Your task to perform on an android device: Do I have any events this weekend? Image 0: 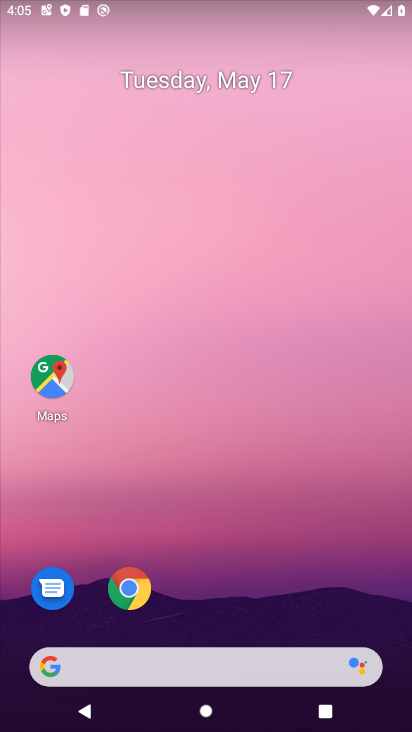
Step 0: drag from (262, 509) to (208, 82)
Your task to perform on an android device: Do I have any events this weekend? Image 1: 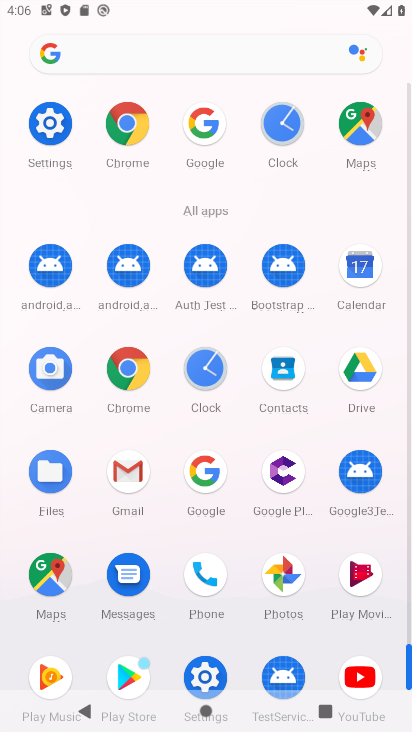
Step 1: click (361, 267)
Your task to perform on an android device: Do I have any events this weekend? Image 2: 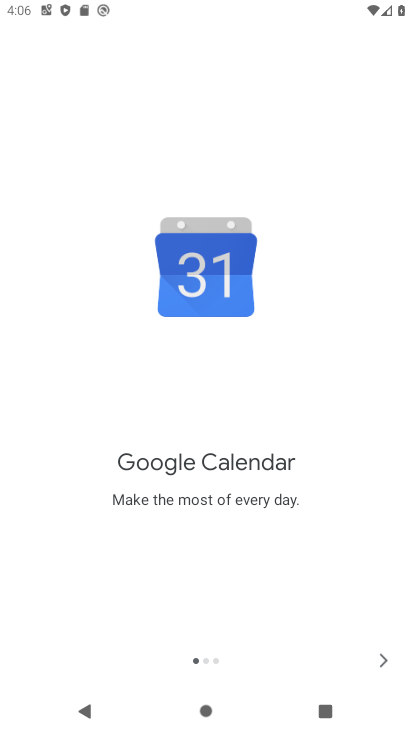
Step 2: click (383, 657)
Your task to perform on an android device: Do I have any events this weekend? Image 3: 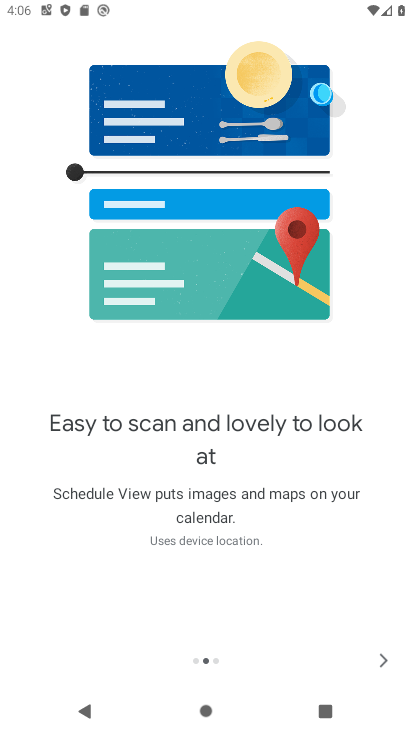
Step 3: click (383, 657)
Your task to perform on an android device: Do I have any events this weekend? Image 4: 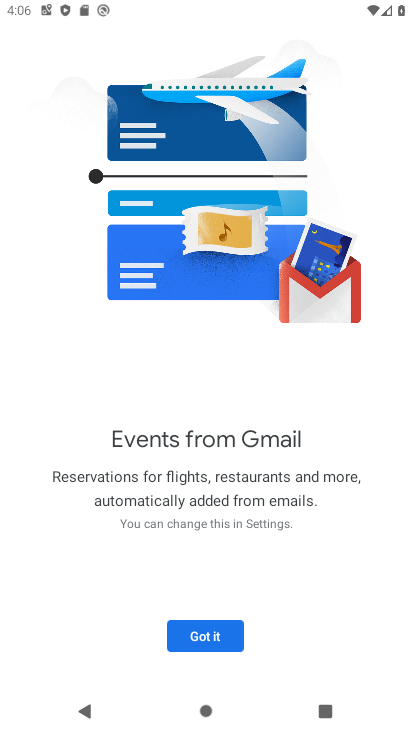
Step 4: click (212, 638)
Your task to perform on an android device: Do I have any events this weekend? Image 5: 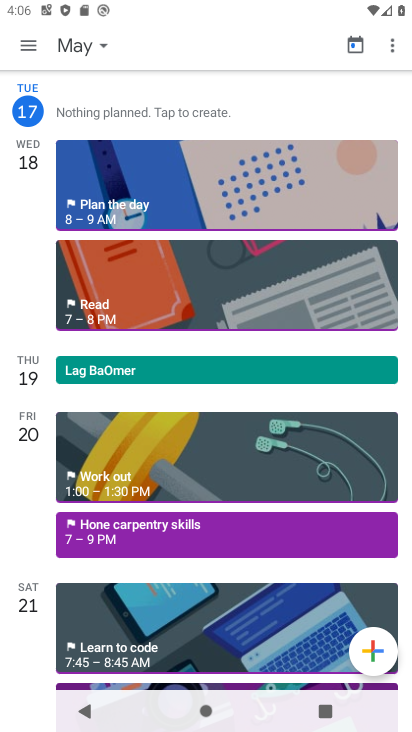
Step 5: click (101, 45)
Your task to perform on an android device: Do I have any events this weekend? Image 6: 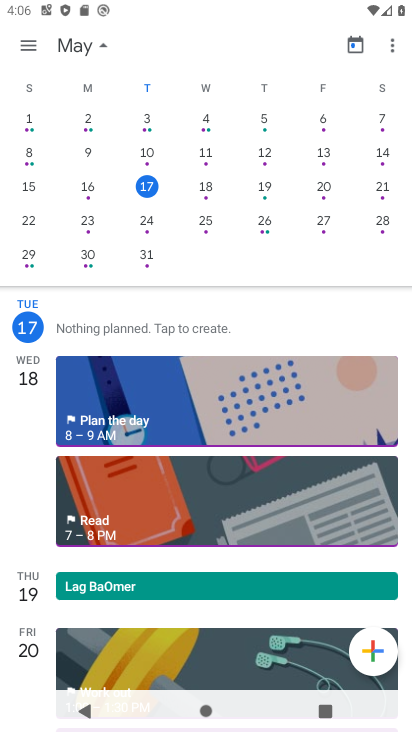
Step 6: click (381, 190)
Your task to perform on an android device: Do I have any events this weekend? Image 7: 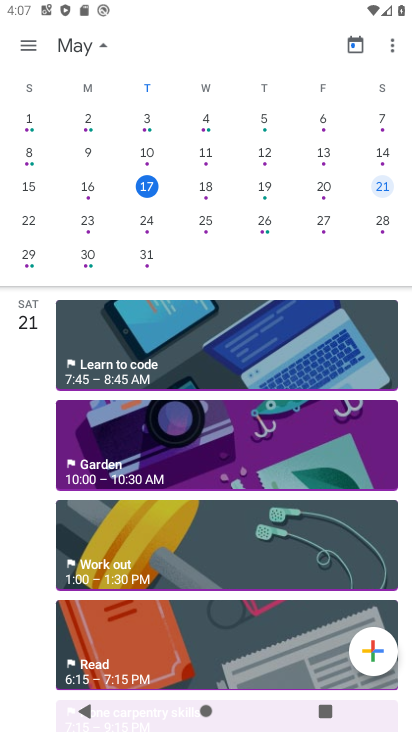
Step 7: click (25, 50)
Your task to perform on an android device: Do I have any events this weekend? Image 8: 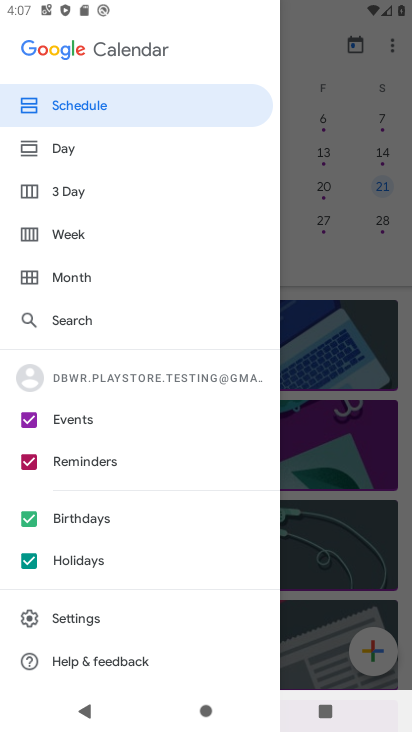
Step 8: click (71, 224)
Your task to perform on an android device: Do I have any events this weekend? Image 9: 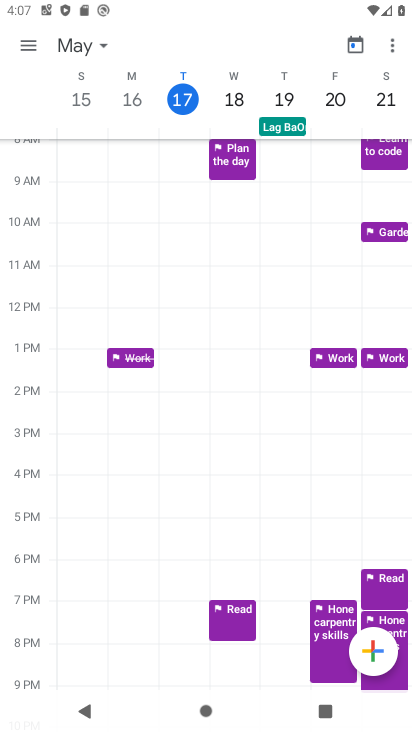
Step 9: task complete